Your task to perform on an android device: turn off priority inbox in the gmail app Image 0: 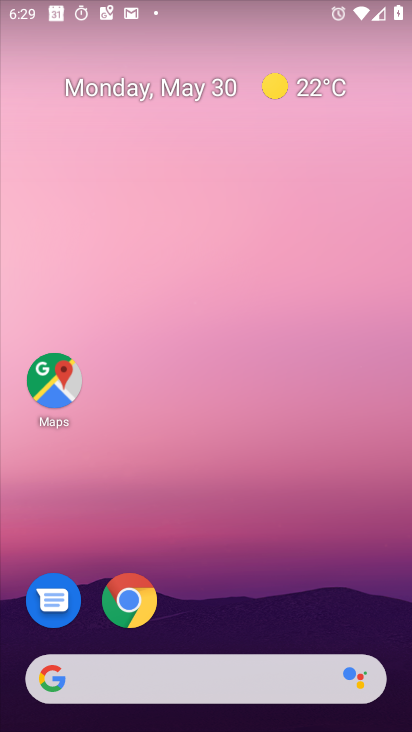
Step 0: press home button
Your task to perform on an android device: turn off priority inbox in the gmail app Image 1: 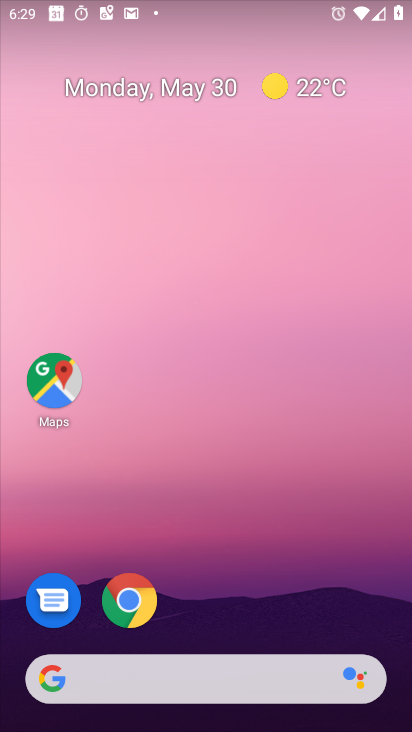
Step 1: drag from (301, 633) to (344, 258)
Your task to perform on an android device: turn off priority inbox in the gmail app Image 2: 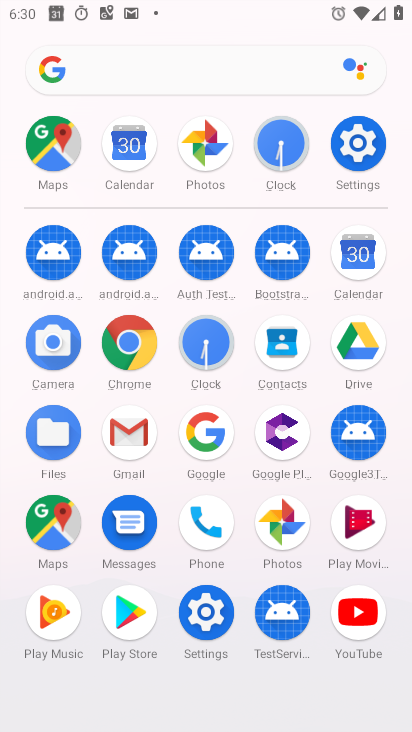
Step 2: click (121, 433)
Your task to perform on an android device: turn off priority inbox in the gmail app Image 3: 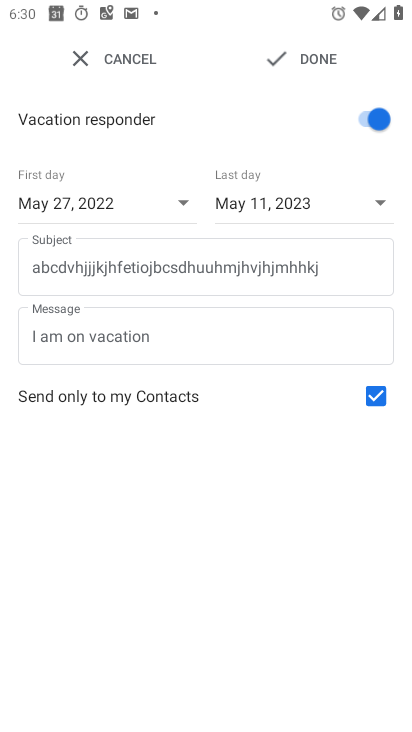
Step 3: click (80, 56)
Your task to perform on an android device: turn off priority inbox in the gmail app Image 4: 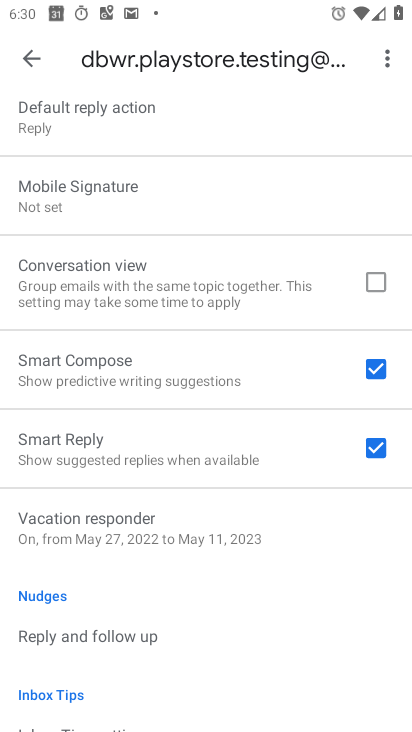
Step 4: drag from (216, 129) to (169, 447)
Your task to perform on an android device: turn off priority inbox in the gmail app Image 5: 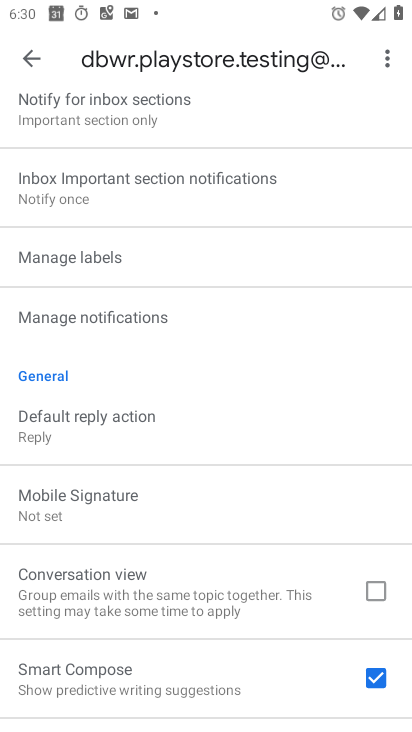
Step 5: drag from (198, 239) to (65, 704)
Your task to perform on an android device: turn off priority inbox in the gmail app Image 6: 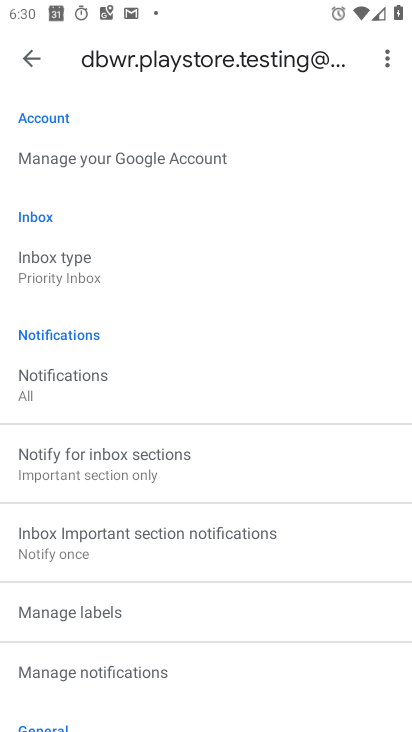
Step 6: click (54, 275)
Your task to perform on an android device: turn off priority inbox in the gmail app Image 7: 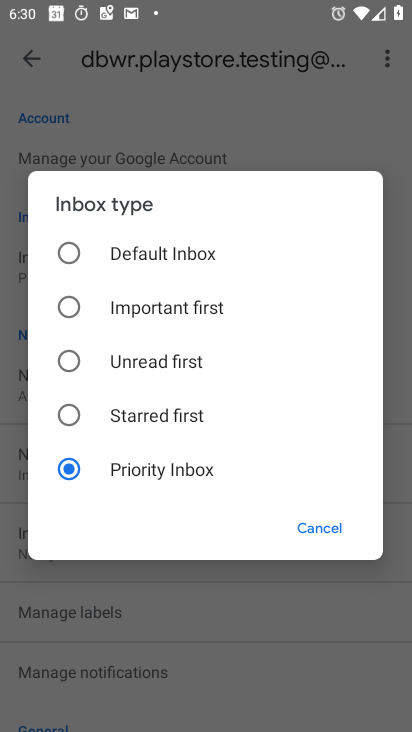
Step 7: click (79, 256)
Your task to perform on an android device: turn off priority inbox in the gmail app Image 8: 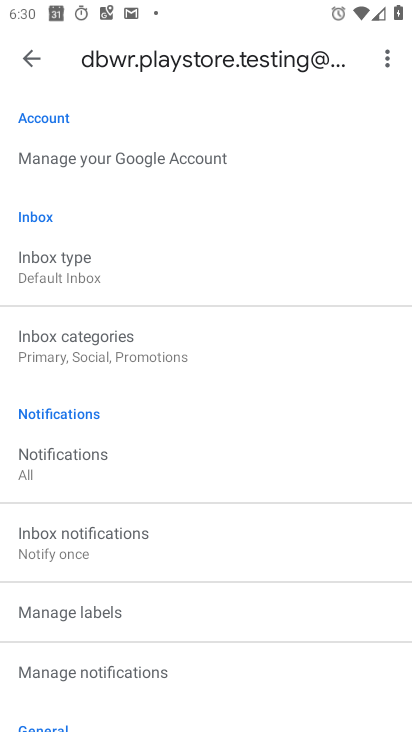
Step 8: task complete